Your task to perform on an android device: open app "Microsoft Outlook" Image 0: 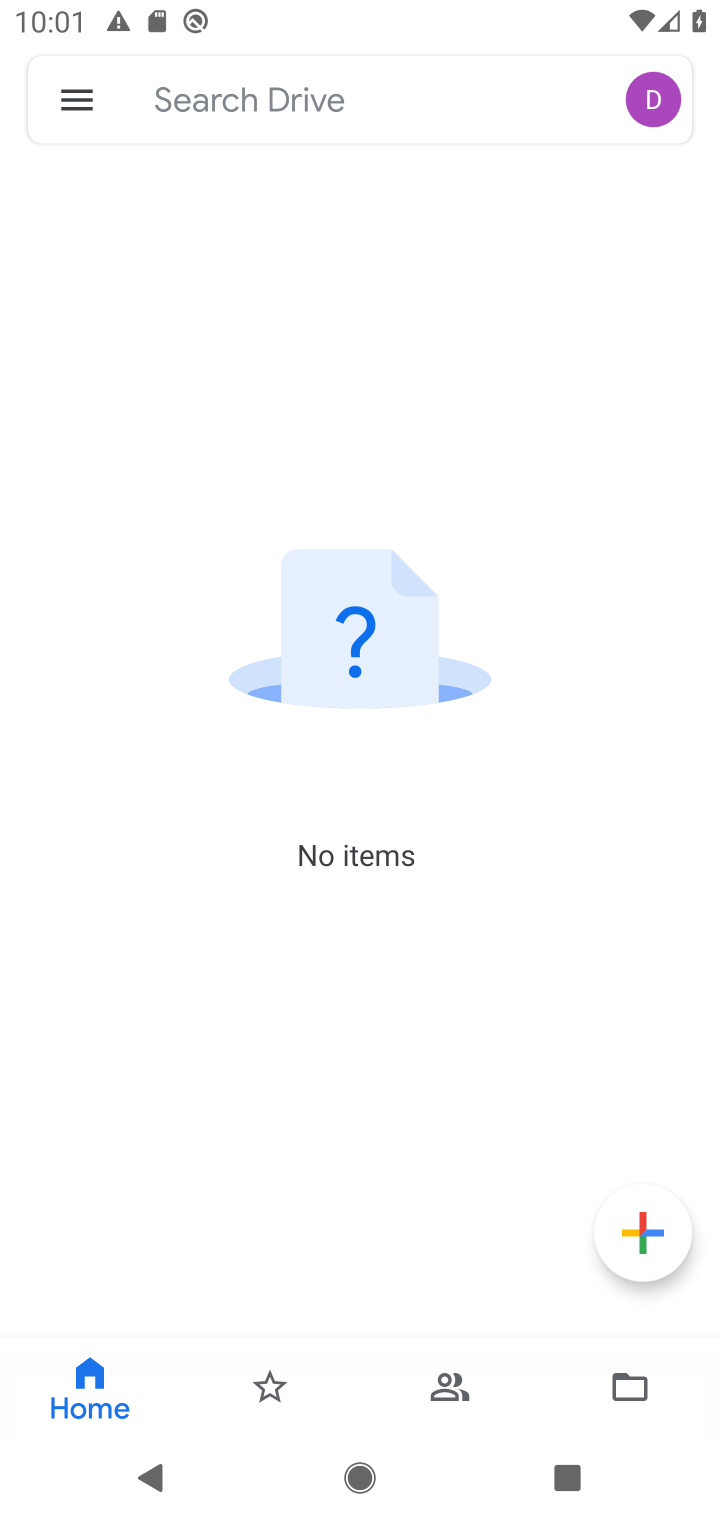
Step 0: press home button
Your task to perform on an android device: open app "Microsoft Outlook" Image 1: 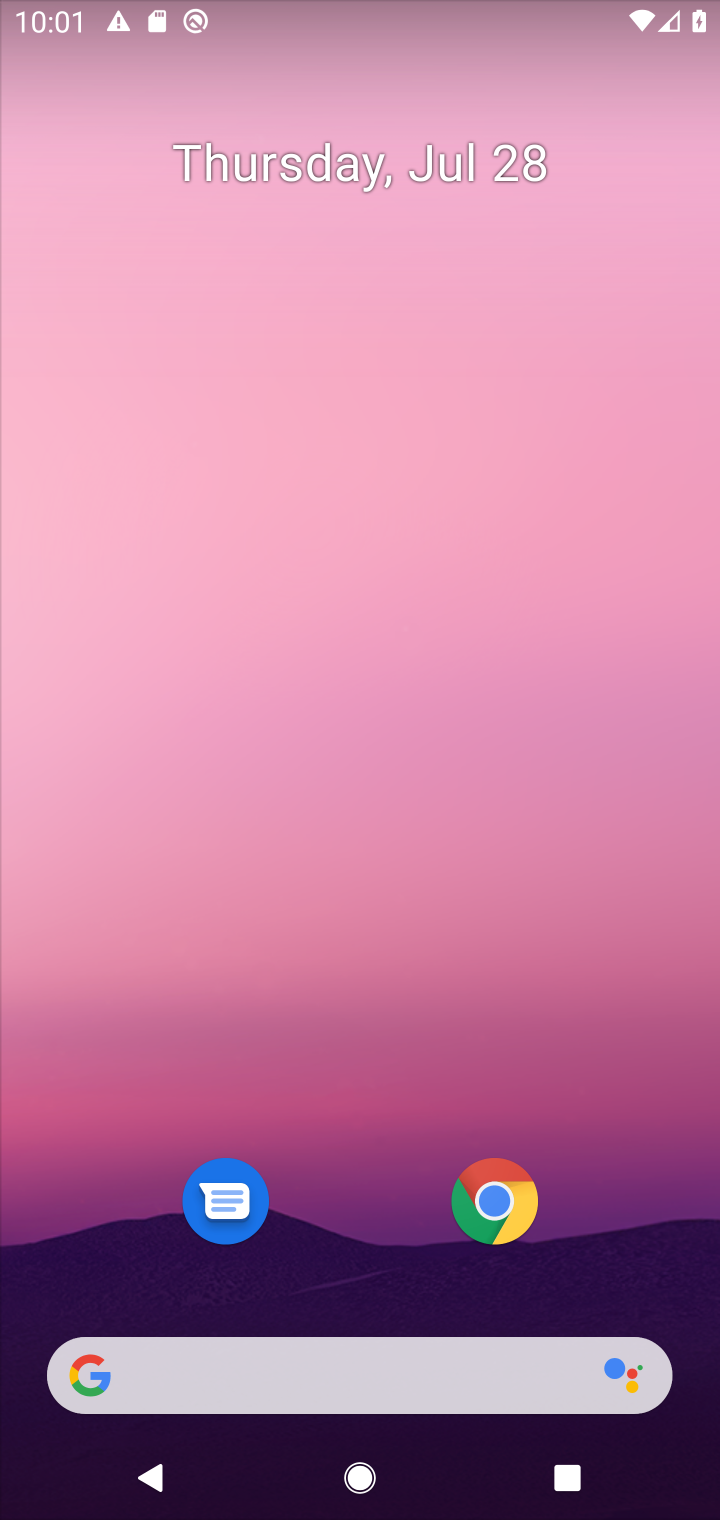
Step 1: drag from (312, 1070) to (375, 169)
Your task to perform on an android device: open app "Microsoft Outlook" Image 2: 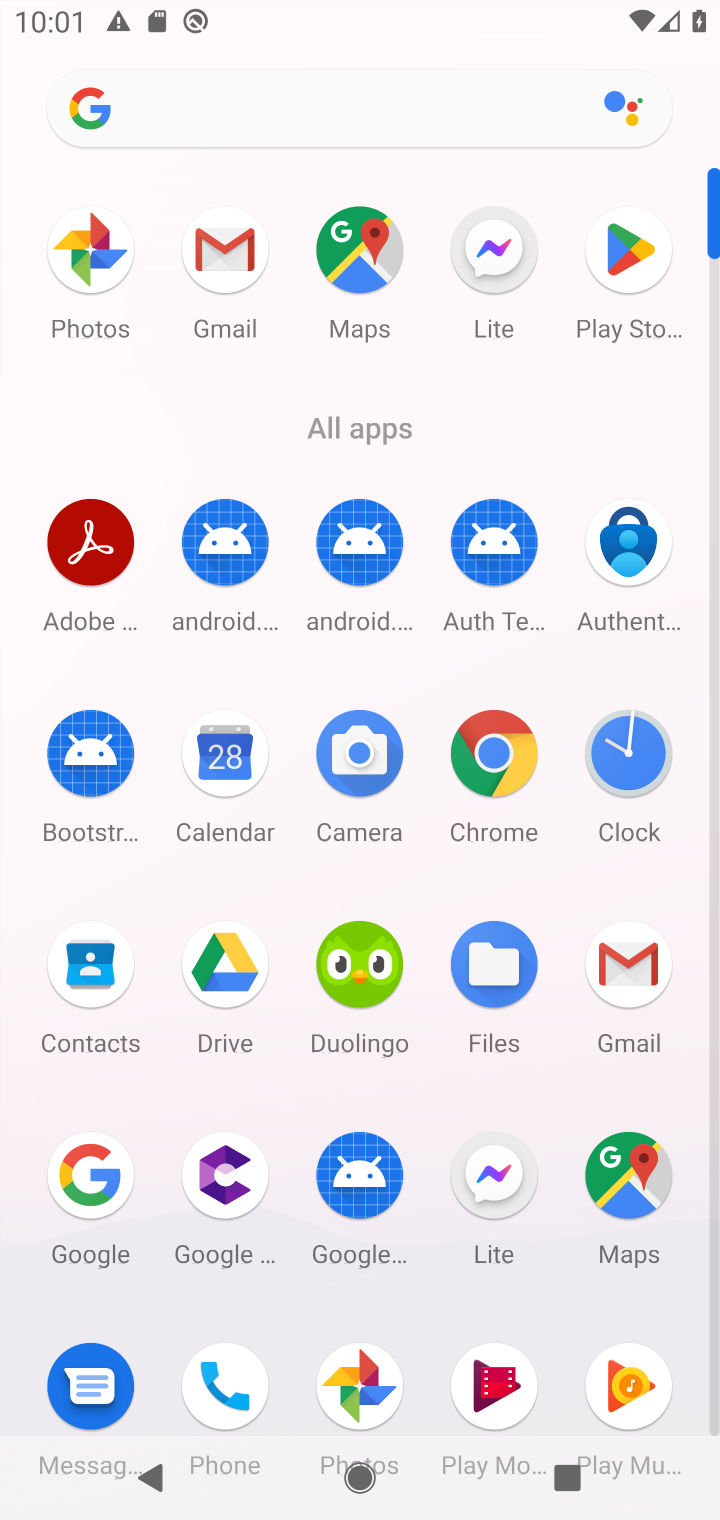
Step 2: click (641, 304)
Your task to perform on an android device: open app "Microsoft Outlook" Image 3: 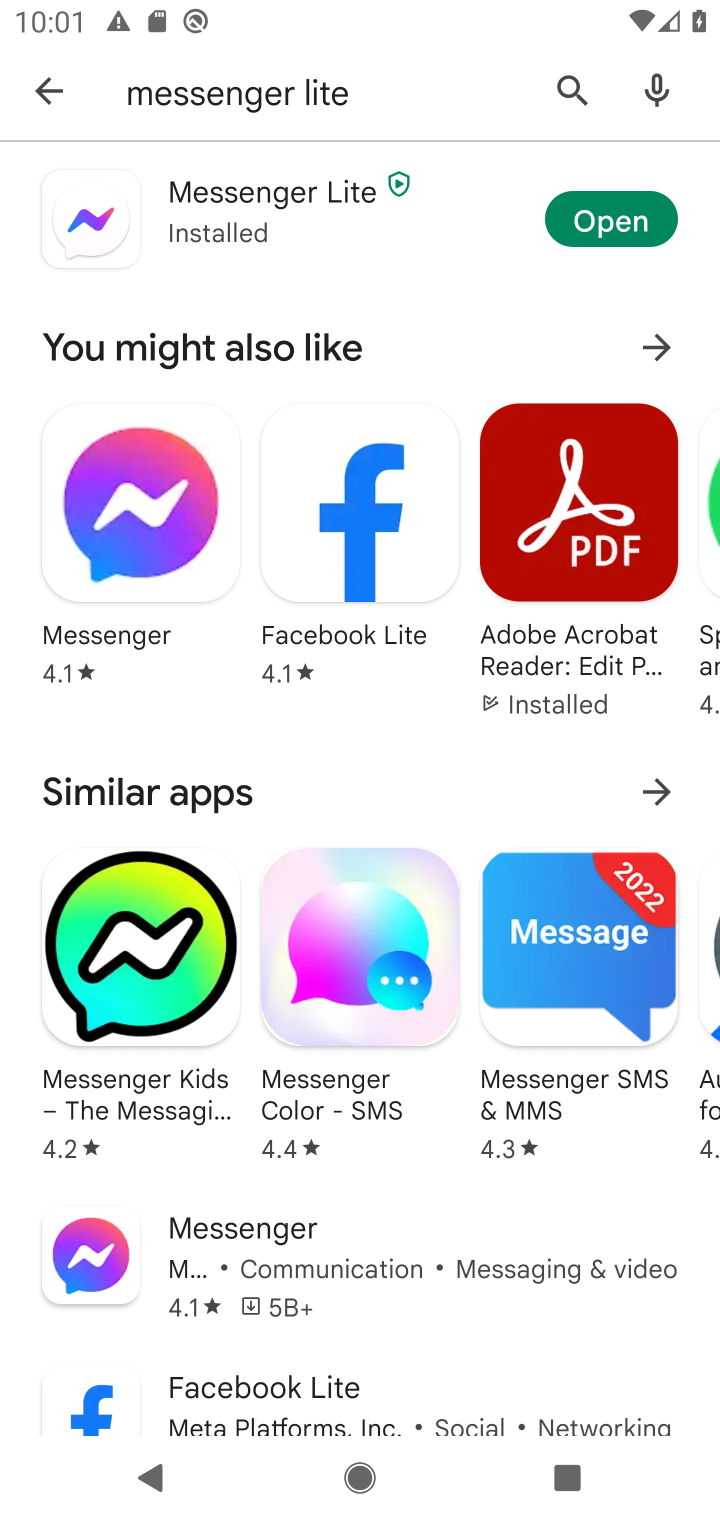
Step 3: click (351, 110)
Your task to perform on an android device: open app "Microsoft Outlook" Image 4: 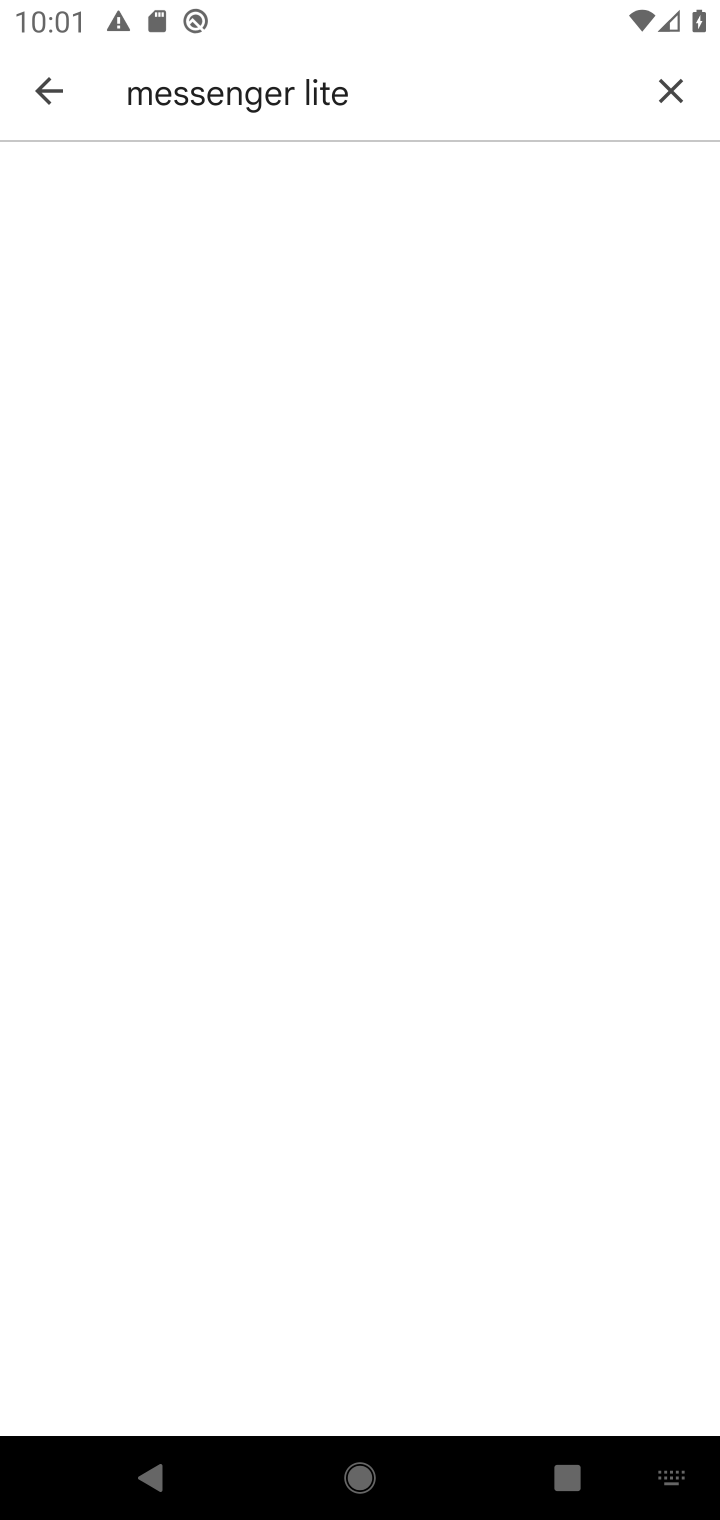
Step 4: click (665, 80)
Your task to perform on an android device: open app "Microsoft Outlook" Image 5: 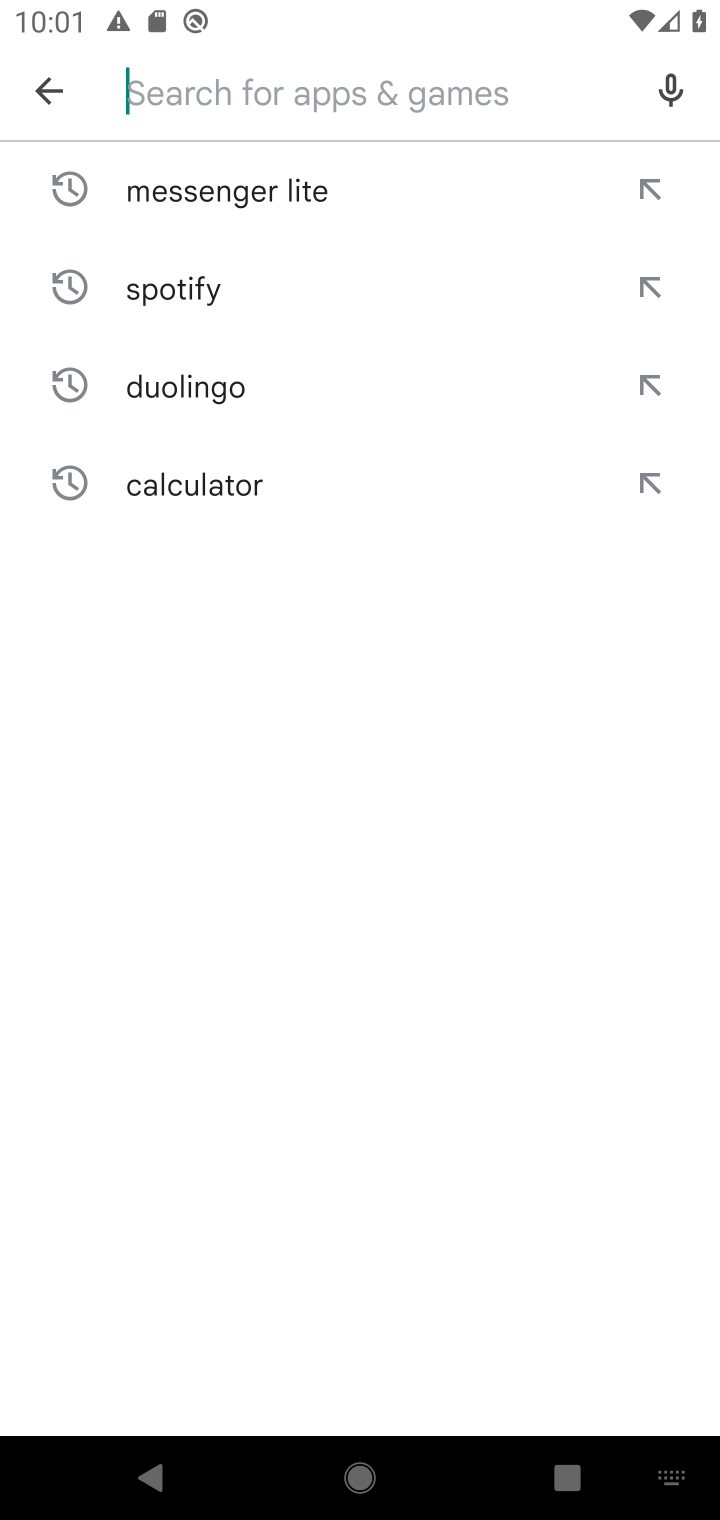
Step 5: type "microsoft Outlook"
Your task to perform on an android device: open app "Microsoft Outlook" Image 6: 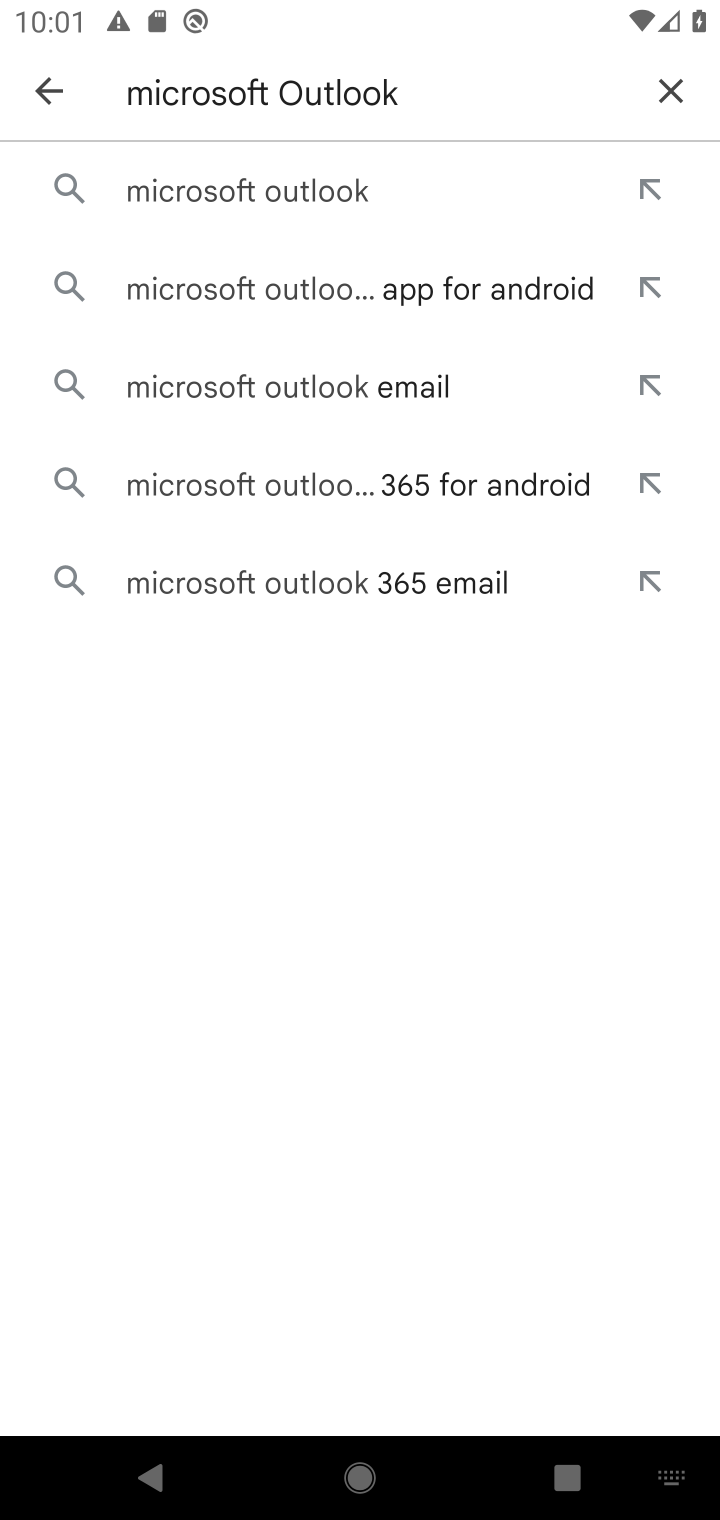
Step 6: click (240, 201)
Your task to perform on an android device: open app "Microsoft Outlook" Image 7: 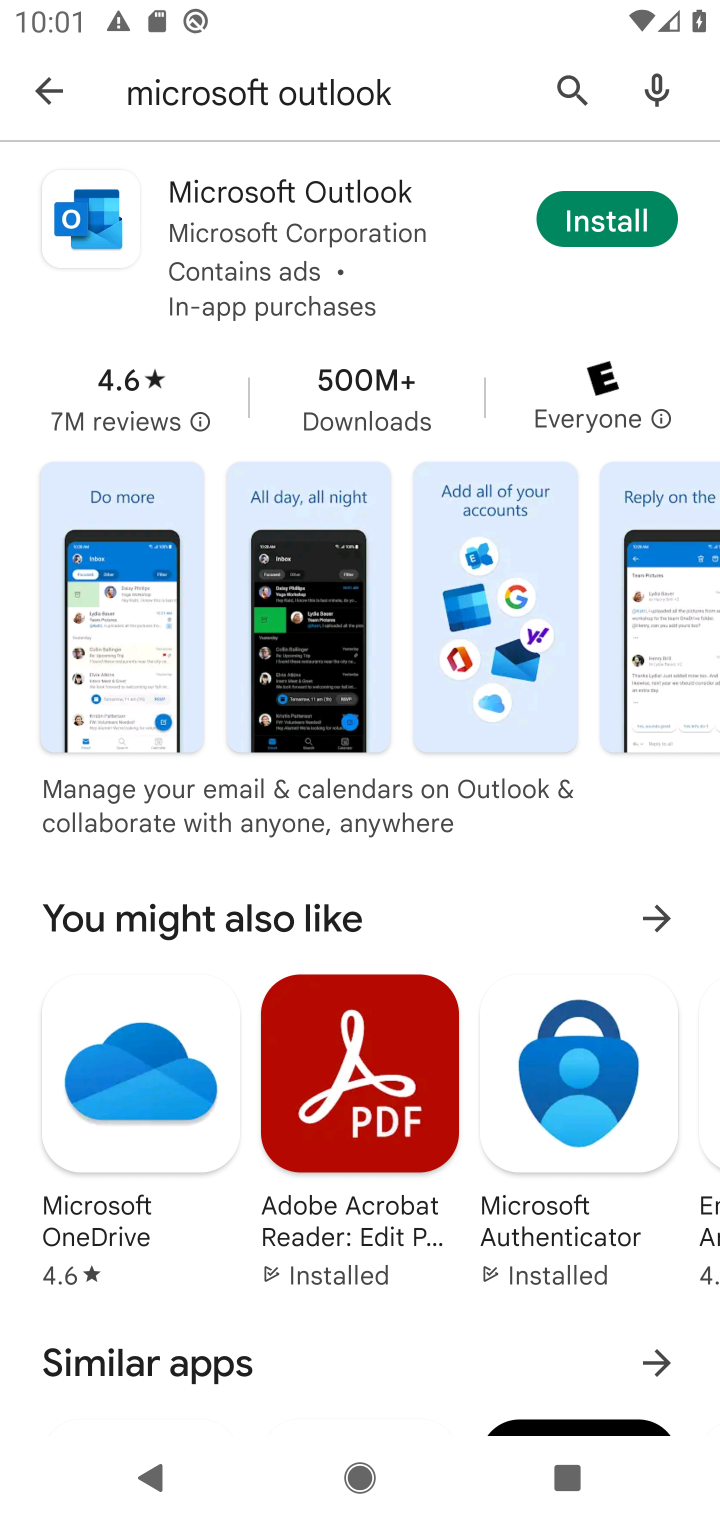
Step 7: task complete